Your task to perform on an android device: turn off notifications settings in the gmail app Image 0: 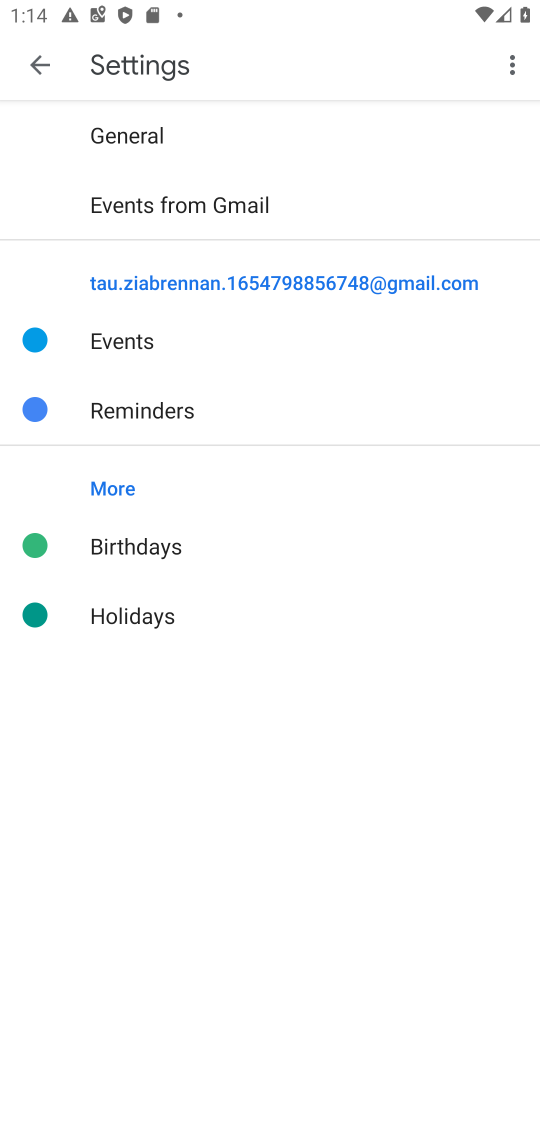
Step 0: press home button
Your task to perform on an android device: turn off notifications settings in the gmail app Image 1: 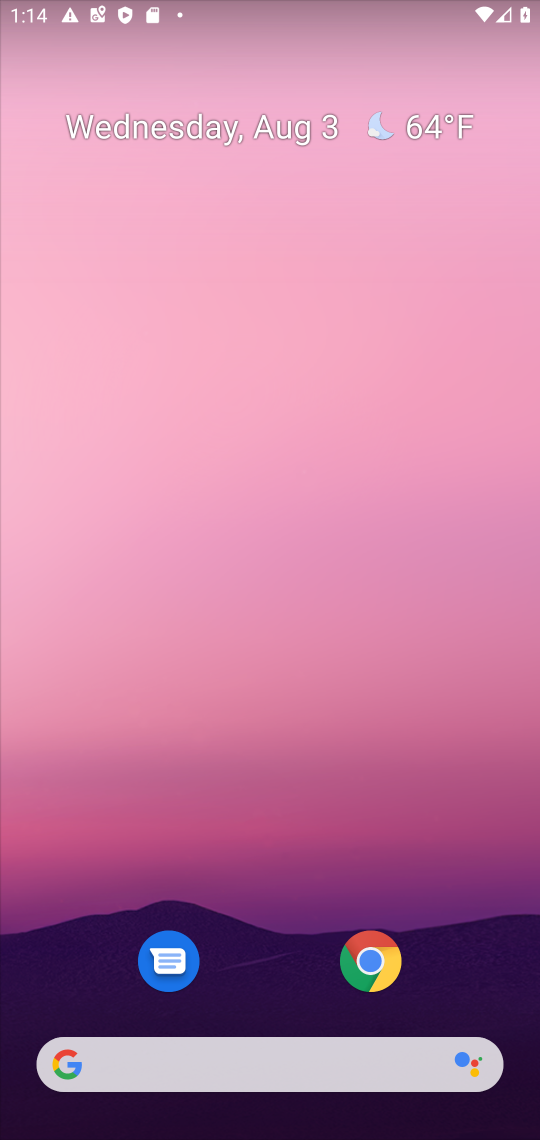
Step 1: drag from (276, 942) to (267, 68)
Your task to perform on an android device: turn off notifications settings in the gmail app Image 2: 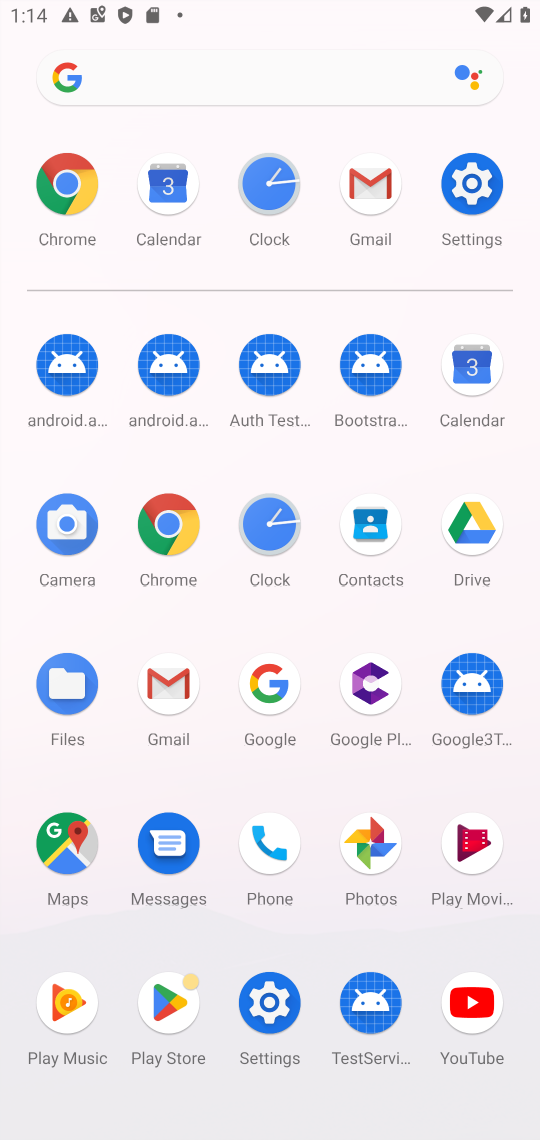
Step 2: click (367, 195)
Your task to perform on an android device: turn off notifications settings in the gmail app Image 3: 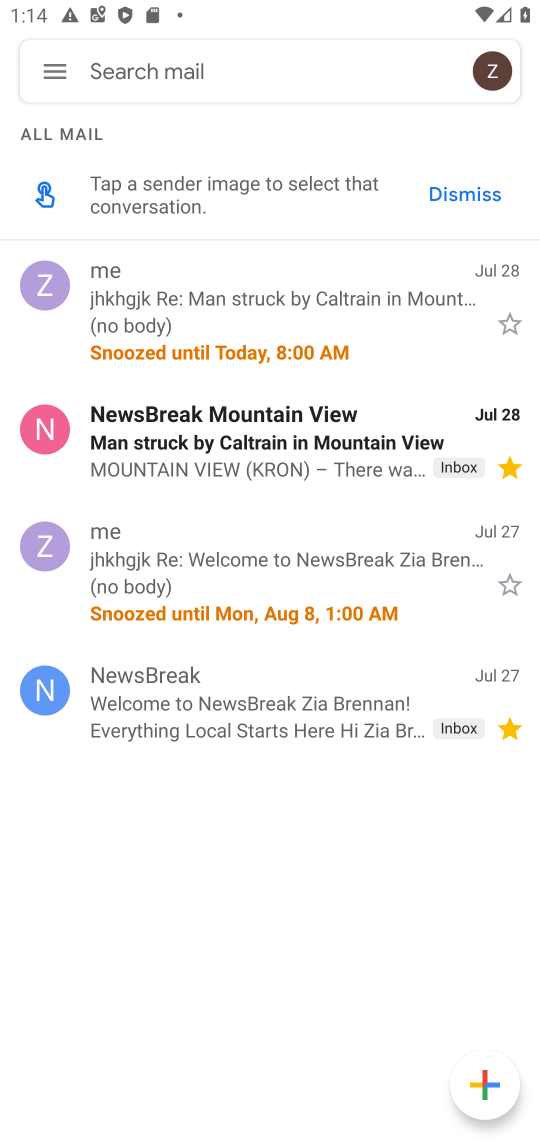
Step 3: click (43, 73)
Your task to perform on an android device: turn off notifications settings in the gmail app Image 4: 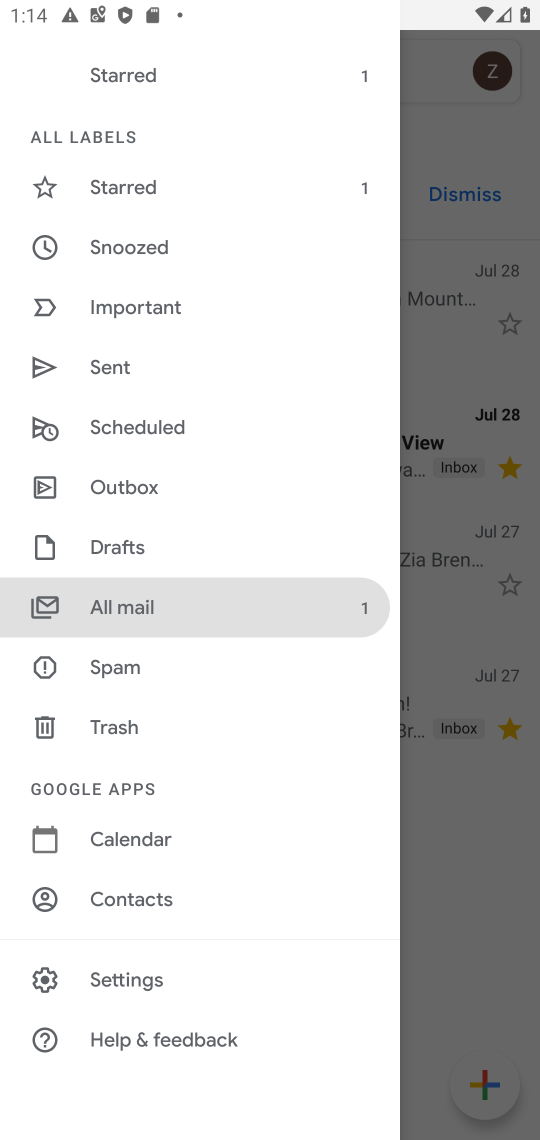
Step 4: click (128, 980)
Your task to perform on an android device: turn off notifications settings in the gmail app Image 5: 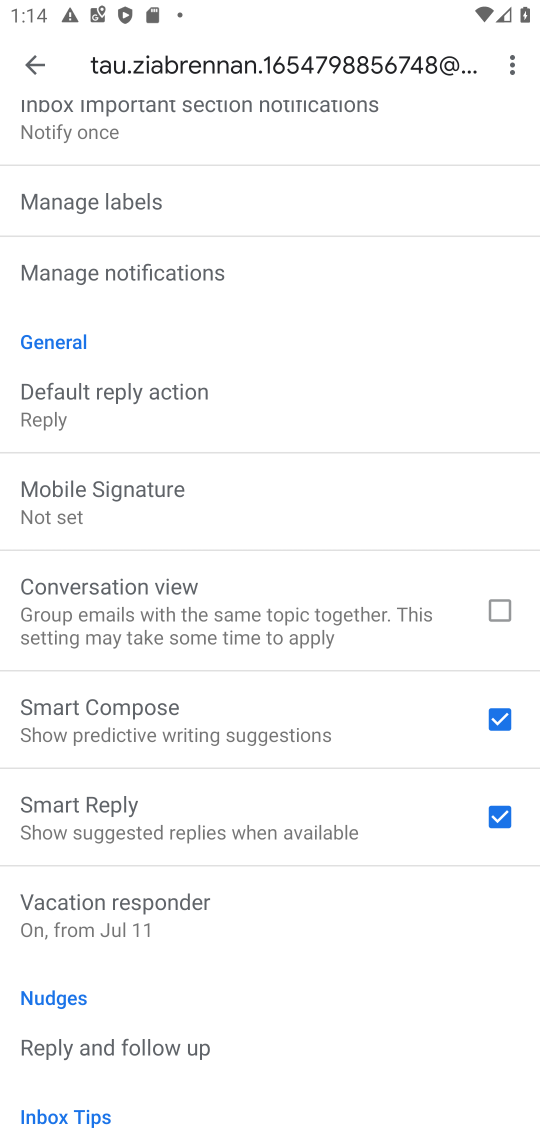
Step 5: click (26, 61)
Your task to perform on an android device: turn off notifications settings in the gmail app Image 6: 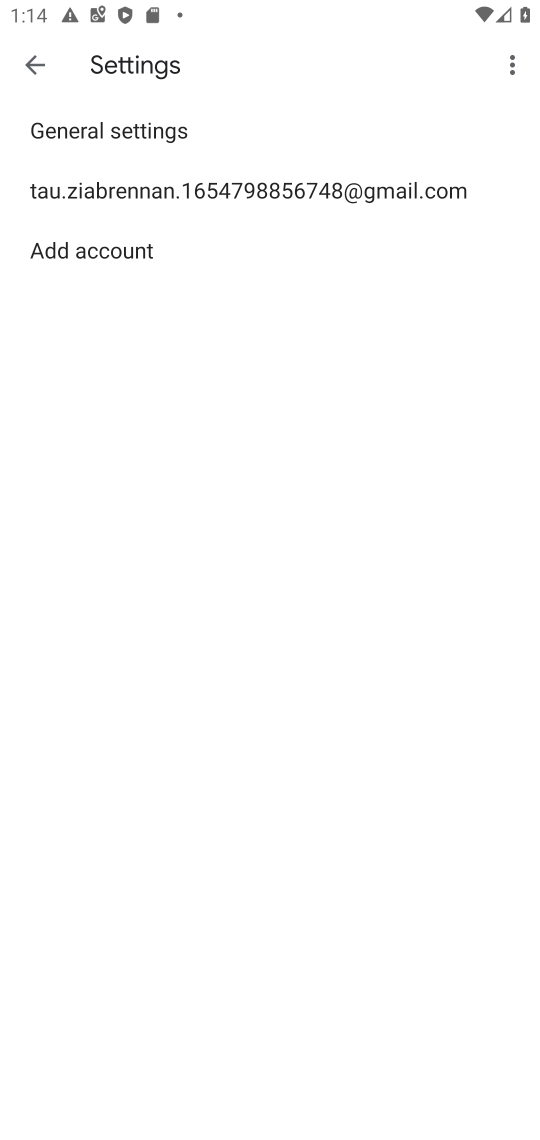
Step 6: click (82, 139)
Your task to perform on an android device: turn off notifications settings in the gmail app Image 7: 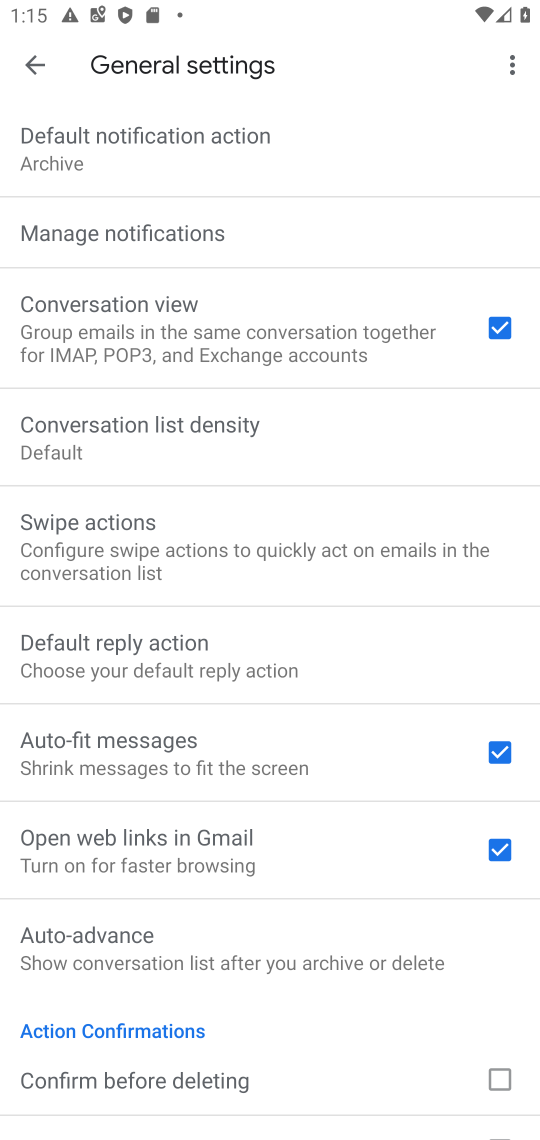
Step 7: click (123, 239)
Your task to perform on an android device: turn off notifications settings in the gmail app Image 8: 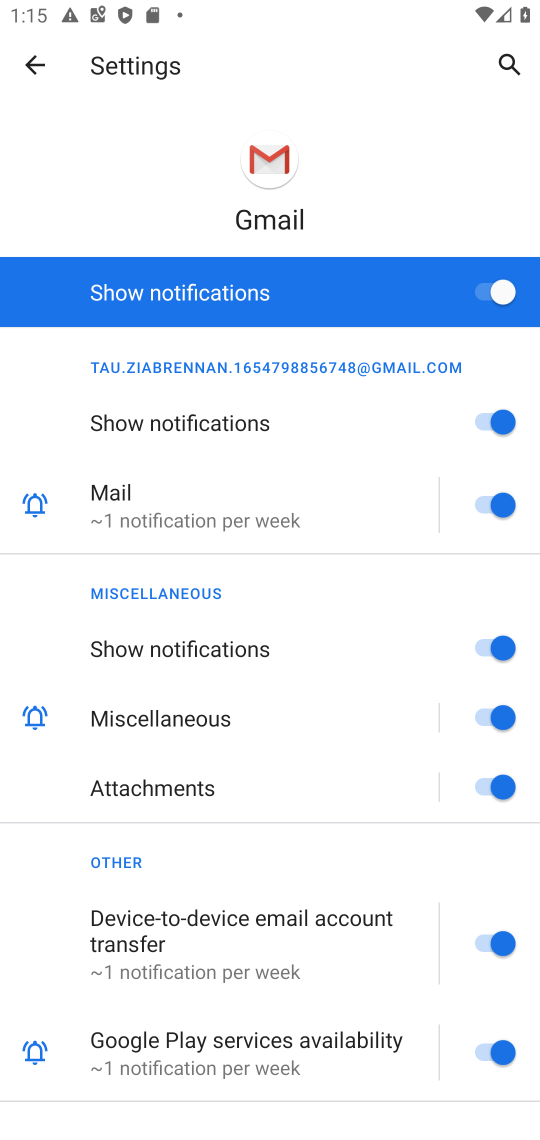
Step 8: click (495, 294)
Your task to perform on an android device: turn off notifications settings in the gmail app Image 9: 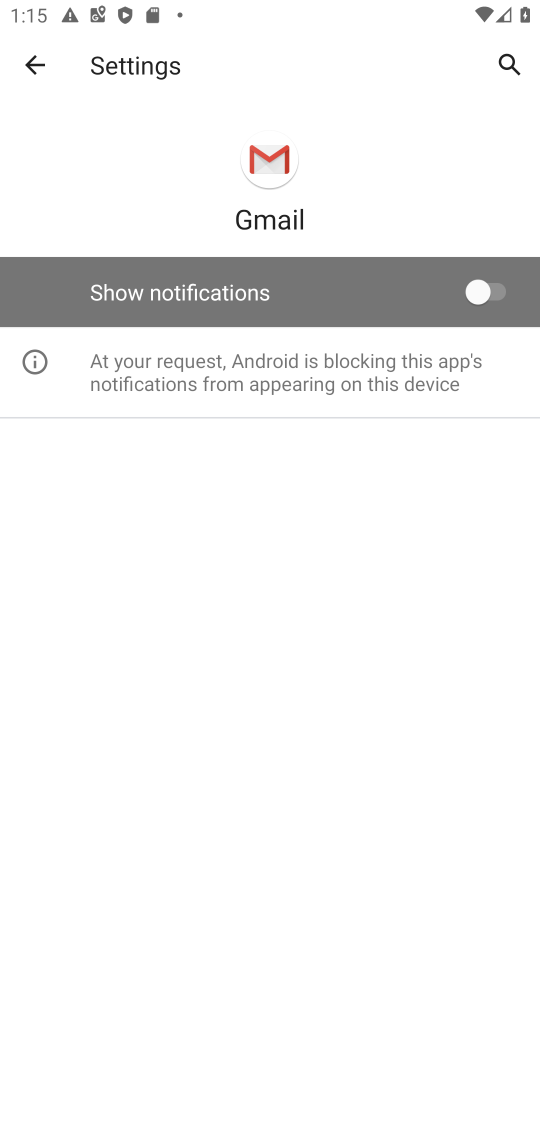
Step 9: task complete